Your task to perform on an android device: Open eBay Image 0: 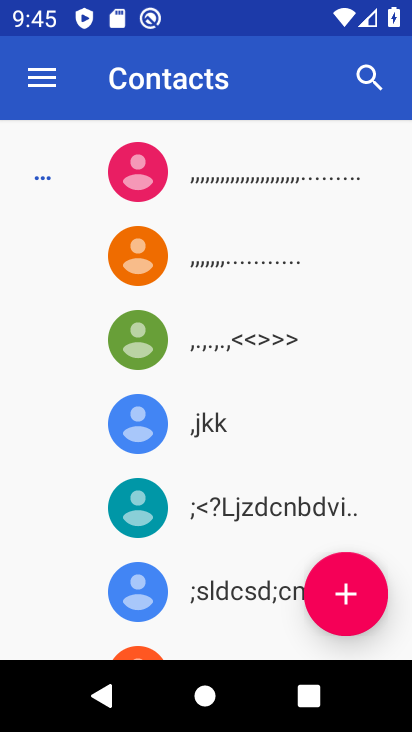
Step 0: press home button
Your task to perform on an android device: Open eBay Image 1: 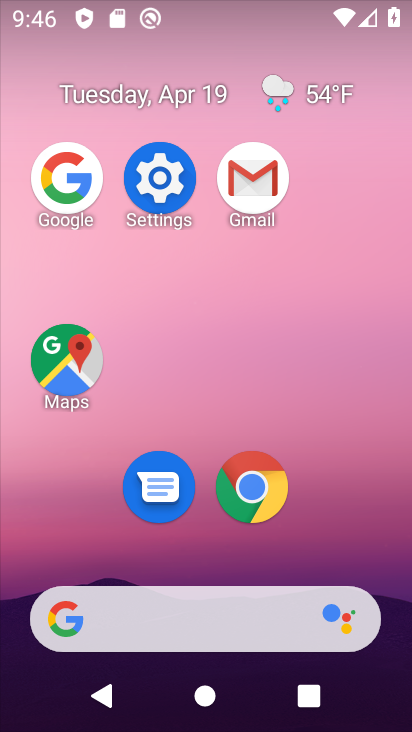
Step 1: click (84, 187)
Your task to perform on an android device: Open eBay Image 2: 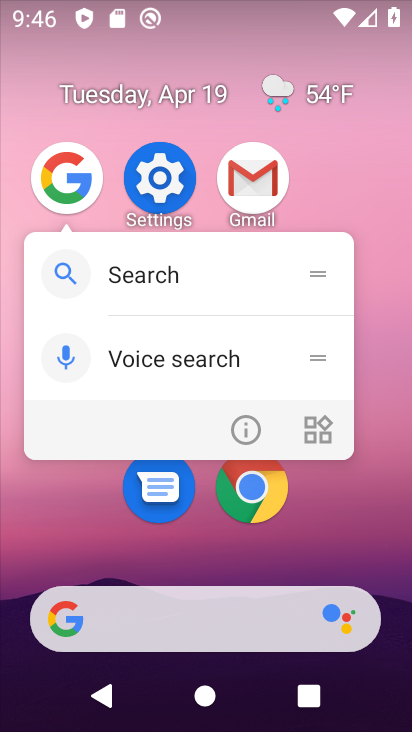
Step 2: click (84, 187)
Your task to perform on an android device: Open eBay Image 3: 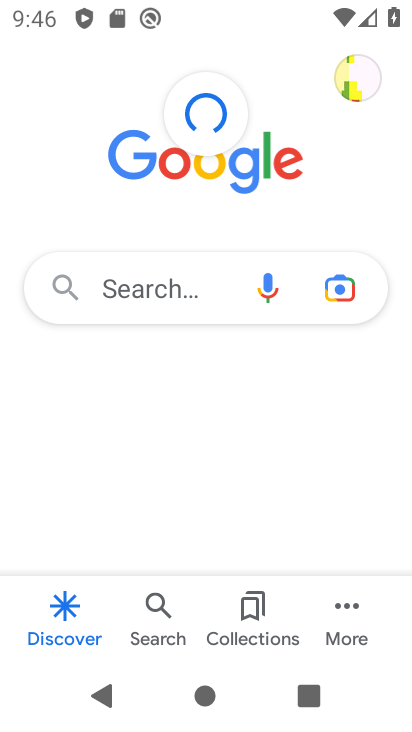
Step 3: click (168, 293)
Your task to perform on an android device: Open eBay Image 4: 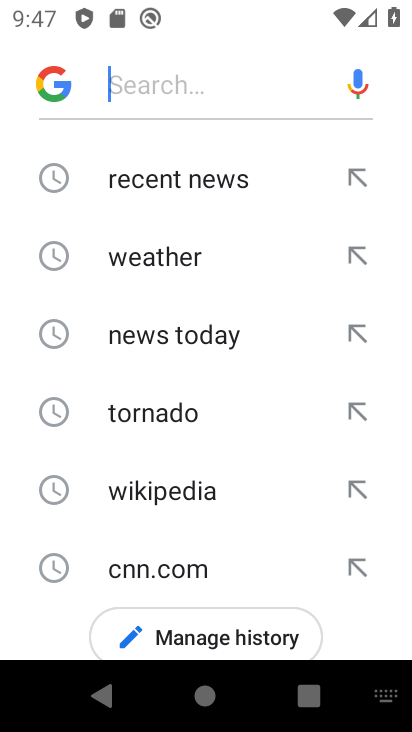
Step 4: type "ebay"
Your task to perform on an android device: Open eBay Image 5: 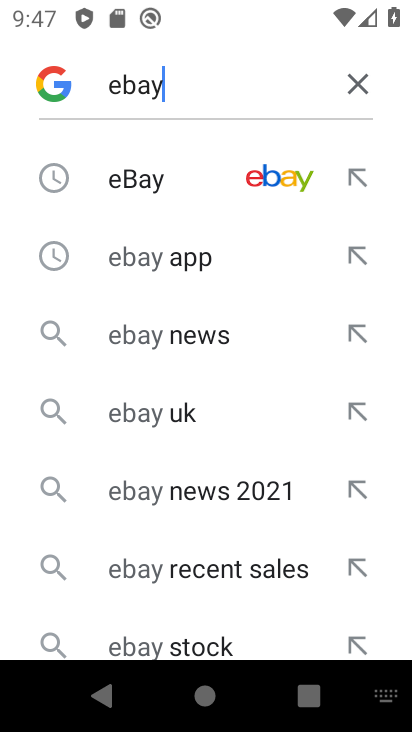
Step 5: click (180, 188)
Your task to perform on an android device: Open eBay Image 6: 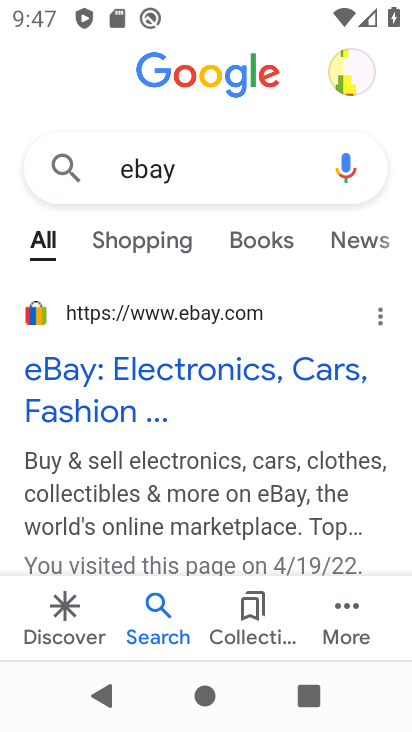
Step 6: click (197, 369)
Your task to perform on an android device: Open eBay Image 7: 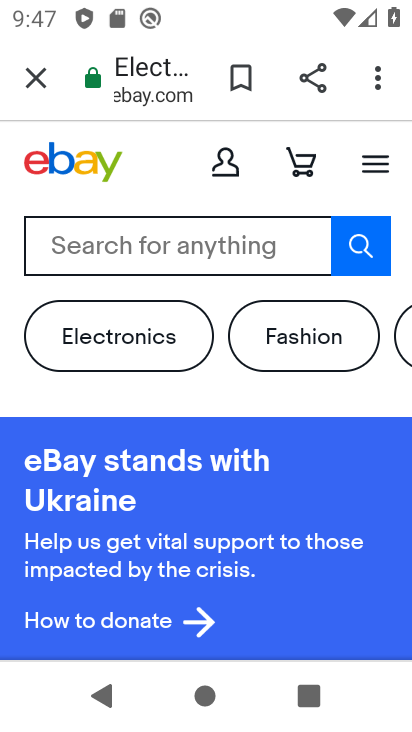
Step 7: task complete